Your task to perform on an android device: change the clock style Image 0: 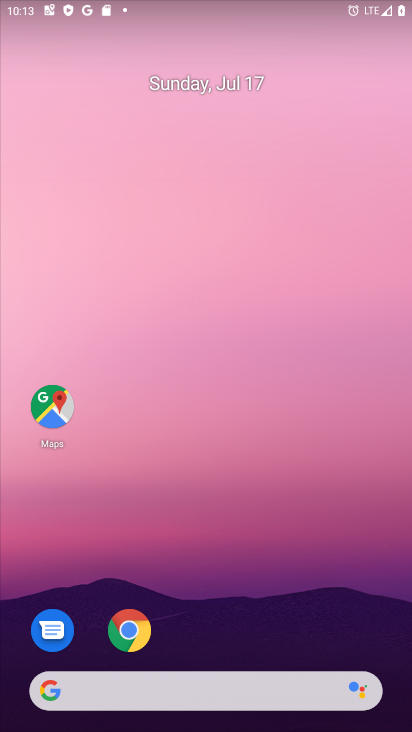
Step 0: press home button
Your task to perform on an android device: change the clock style Image 1: 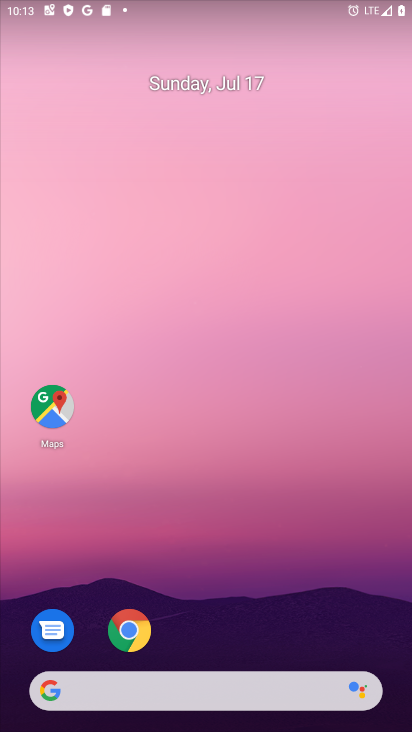
Step 1: drag from (223, 645) to (292, 72)
Your task to perform on an android device: change the clock style Image 2: 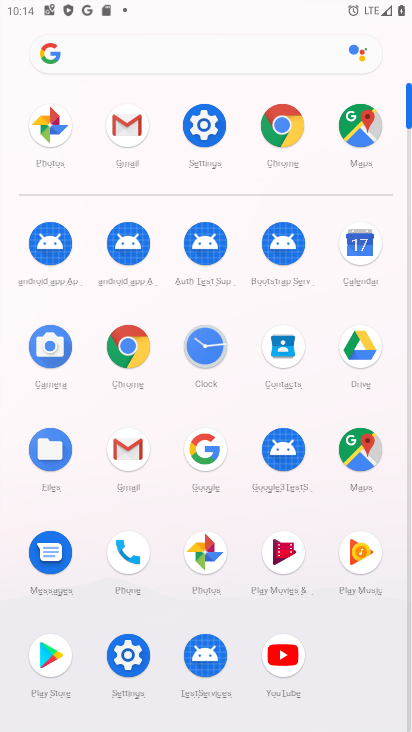
Step 2: click (204, 337)
Your task to perform on an android device: change the clock style Image 3: 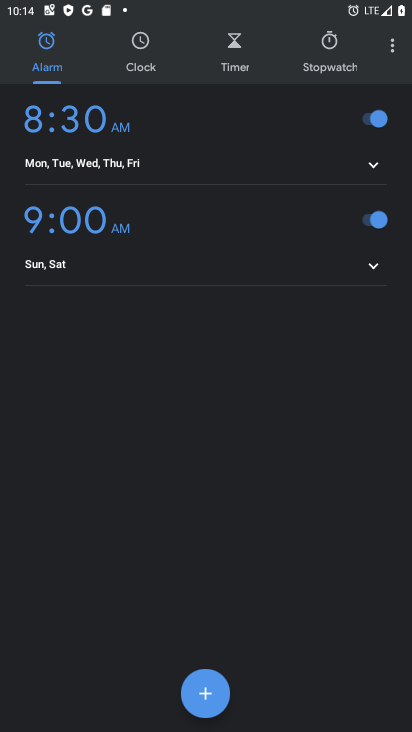
Step 3: click (390, 44)
Your task to perform on an android device: change the clock style Image 4: 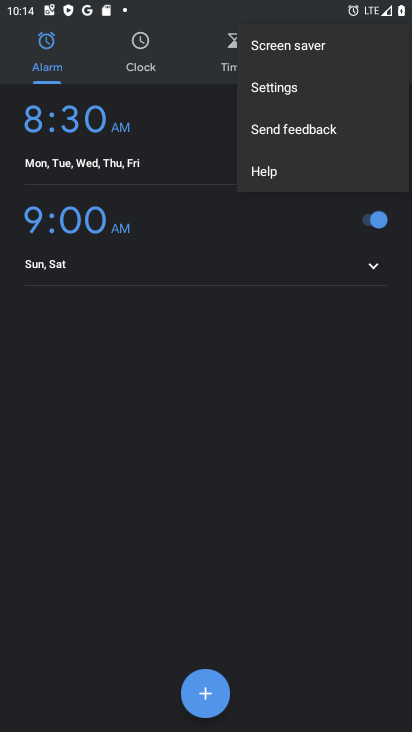
Step 4: click (312, 87)
Your task to perform on an android device: change the clock style Image 5: 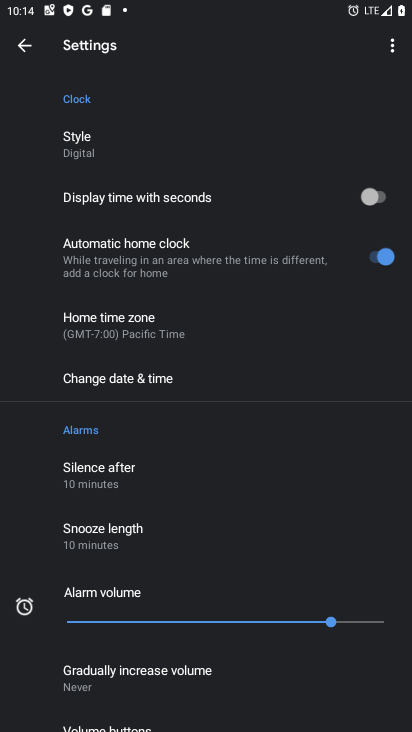
Step 5: click (107, 136)
Your task to perform on an android device: change the clock style Image 6: 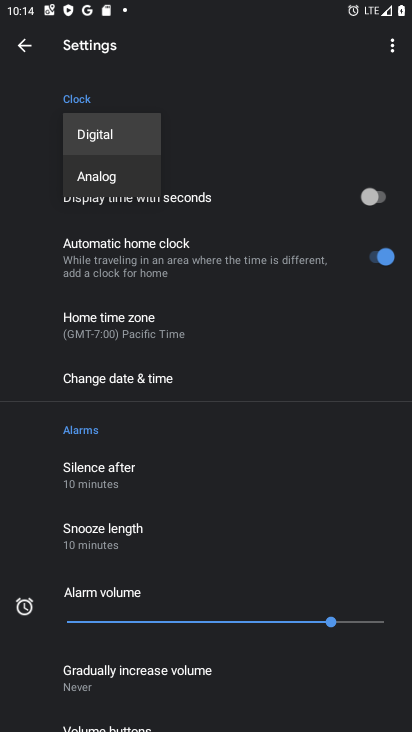
Step 6: click (126, 177)
Your task to perform on an android device: change the clock style Image 7: 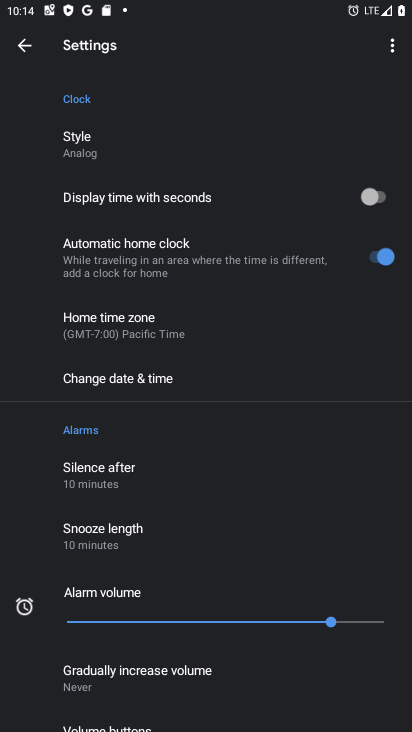
Step 7: task complete